Your task to perform on an android device: Open the calendar app, open the side menu, and click the "Day" option Image 0: 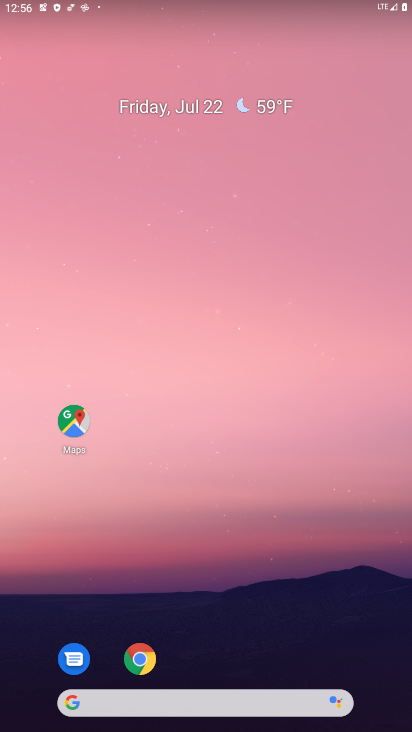
Step 0: drag from (343, 562) to (260, 53)
Your task to perform on an android device: Open the calendar app, open the side menu, and click the "Day" option Image 1: 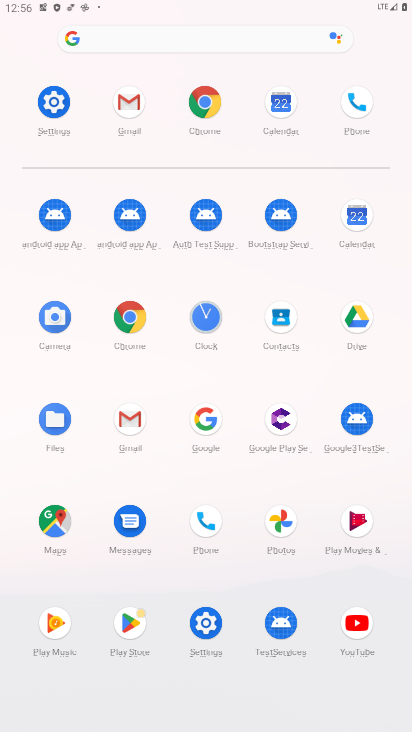
Step 1: click (349, 226)
Your task to perform on an android device: Open the calendar app, open the side menu, and click the "Day" option Image 2: 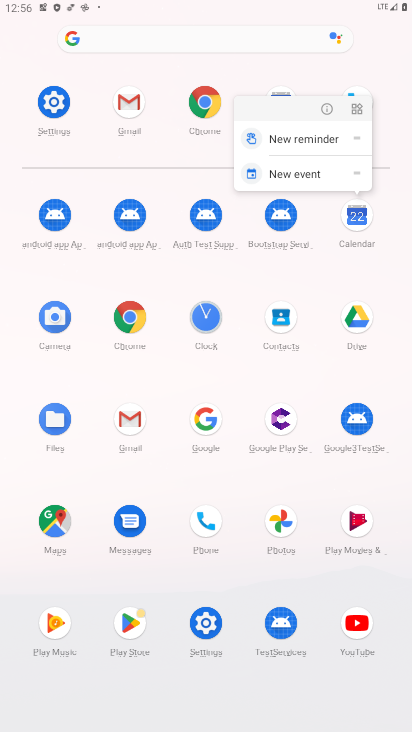
Step 2: click (348, 225)
Your task to perform on an android device: Open the calendar app, open the side menu, and click the "Day" option Image 3: 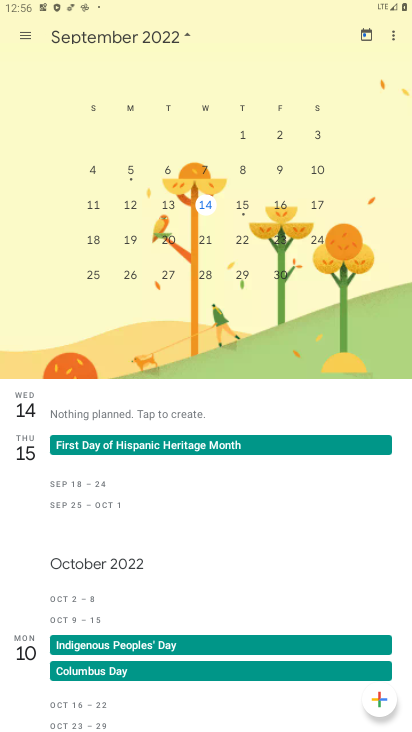
Step 3: click (28, 32)
Your task to perform on an android device: Open the calendar app, open the side menu, and click the "Day" option Image 4: 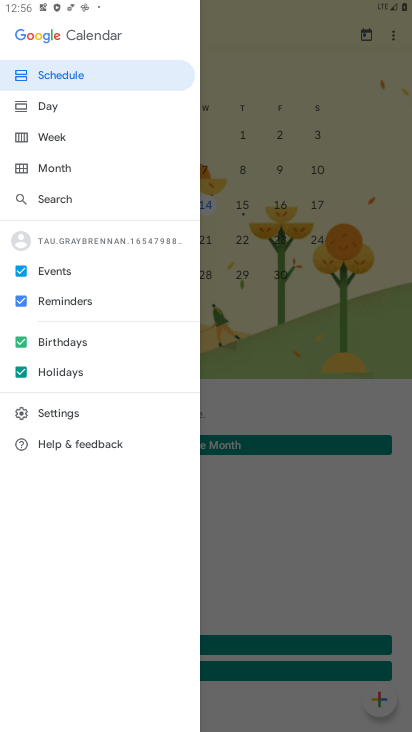
Step 4: click (54, 110)
Your task to perform on an android device: Open the calendar app, open the side menu, and click the "Day" option Image 5: 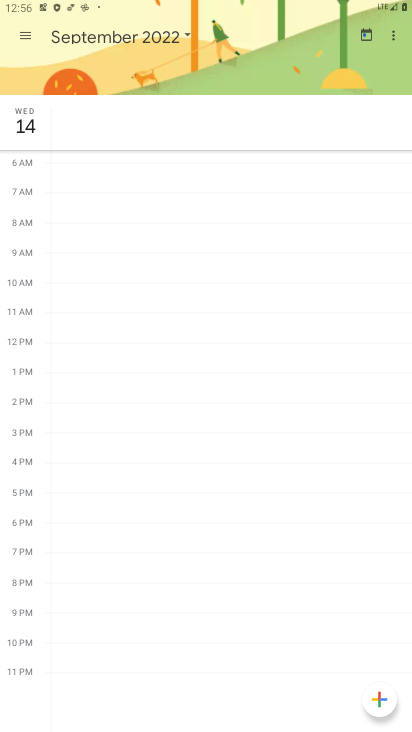
Step 5: task complete